Your task to perform on an android device: Go to Android settings Image 0: 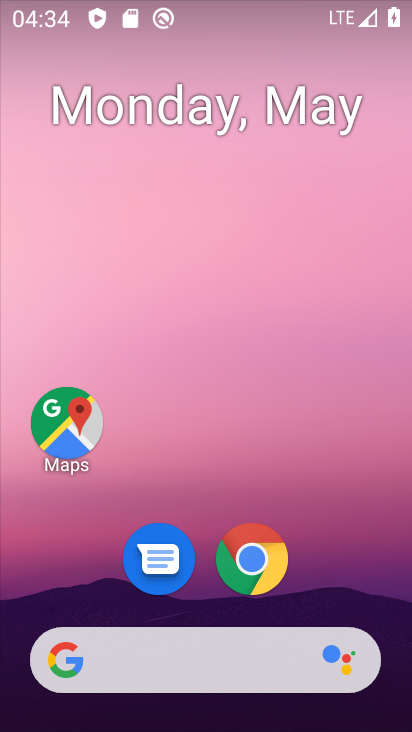
Step 0: drag from (333, 697) to (333, 71)
Your task to perform on an android device: Go to Android settings Image 1: 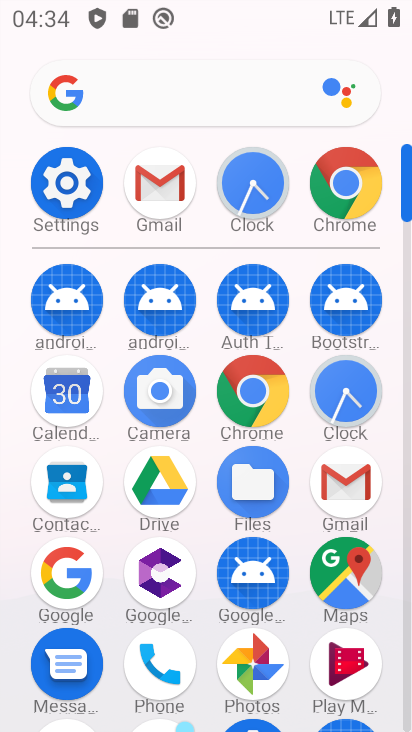
Step 1: click (77, 198)
Your task to perform on an android device: Go to Android settings Image 2: 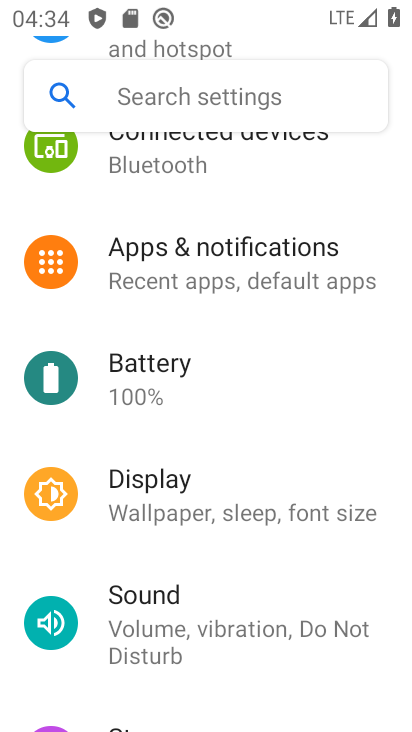
Step 2: drag from (337, 276) to (359, 699)
Your task to perform on an android device: Go to Android settings Image 3: 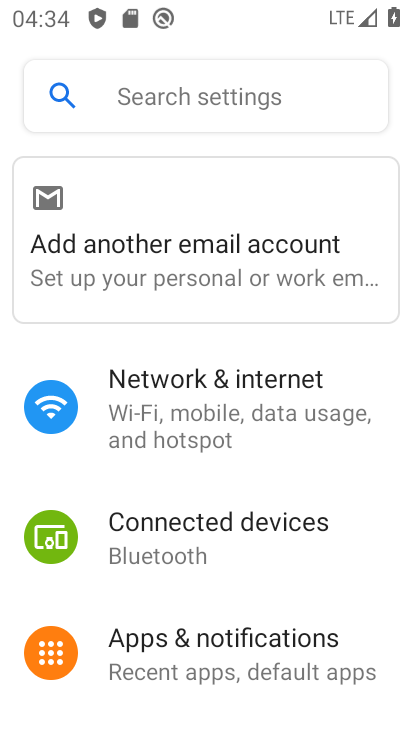
Step 3: drag from (225, 609) to (224, 128)
Your task to perform on an android device: Go to Android settings Image 4: 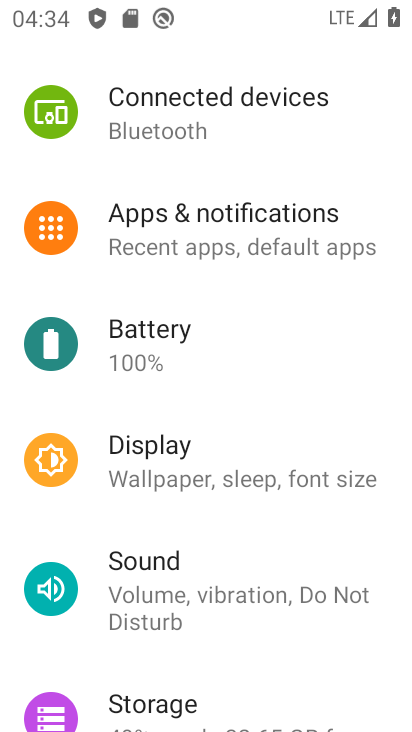
Step 4: drag from (171, 250) to (214, 76)
Your task to perform on an android device: Go to Android settings Image 5: 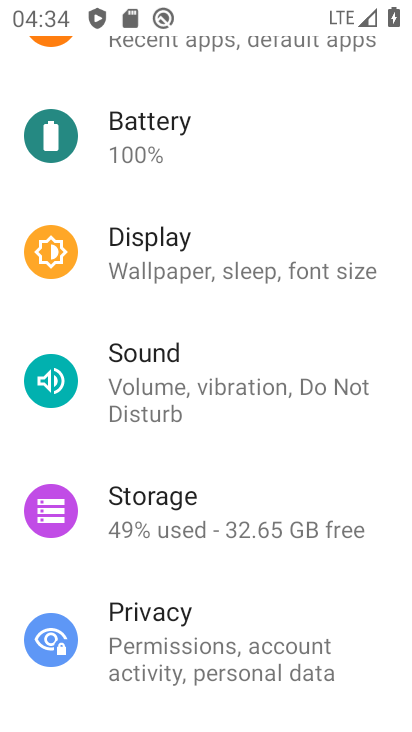
Step 5: drag from (293, 681) to (289, 70)
Your task to perform on an android device: Go to Android settings Image 6: 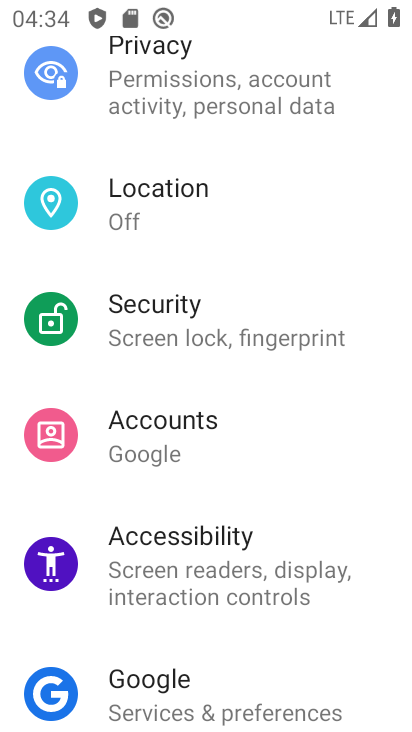
Step 6: drag from (247, 592) to (257, 251)
Your task to perform on an android device: Go to Android settings Image 7: 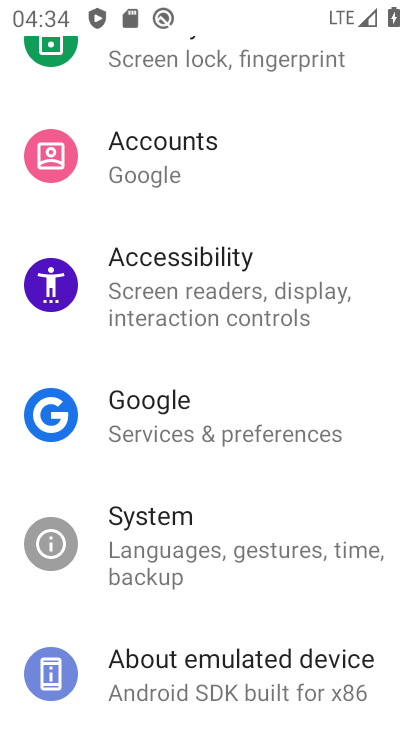
Step 7: click (272, 709)
Your task to perform on an android device: Go to Android settings Image 8: 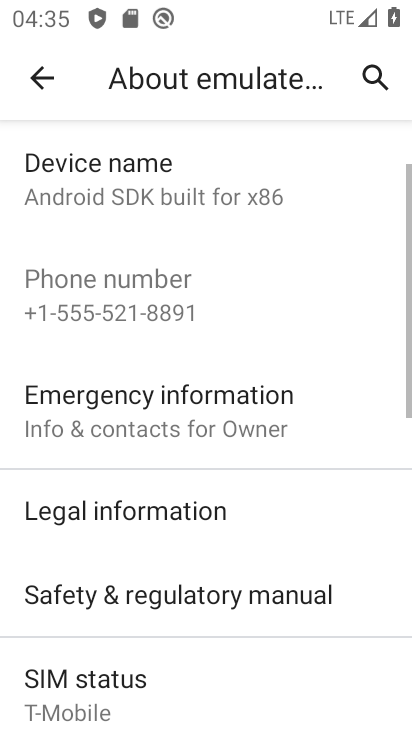
Step 8: task complete